Your task to perform on an android device: open app "McDonald's" (install if not already installed) Image 0: 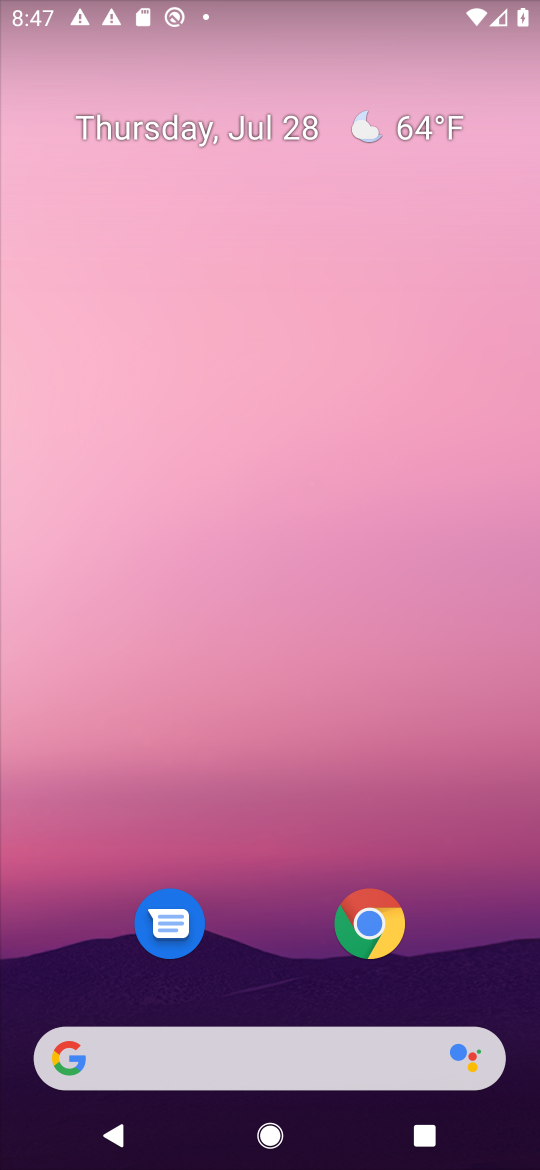
Step 0: press home button
Your task to perform on an android device: open app "McDonald's" (install if not already installed) Image 1: 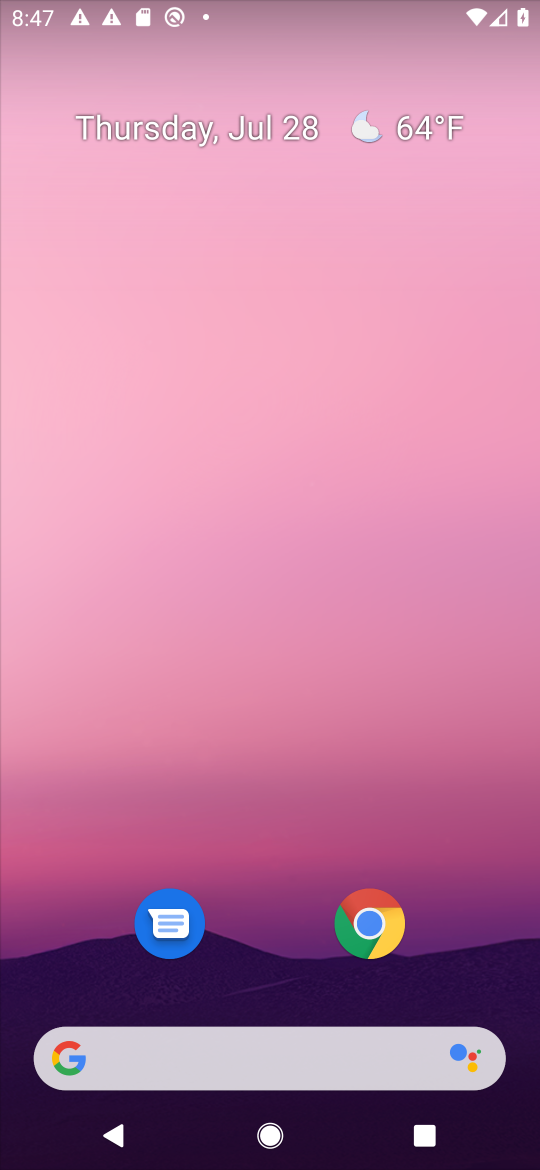
Step 1: drag from (464, 781) to (448, 215)
Your task to perform on an android device: open app "McDonald's" (install if not already installed) Image 2: 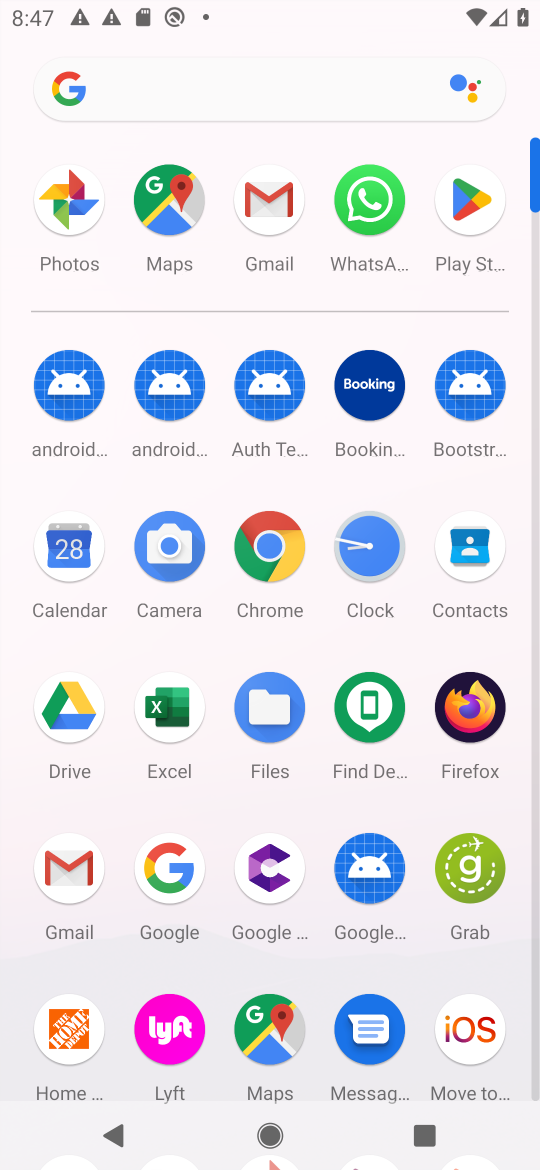
Step 2: click (475, 208)
Your task to perform on an android device: open app "McDonald's" (install if not already installed) Image 3: 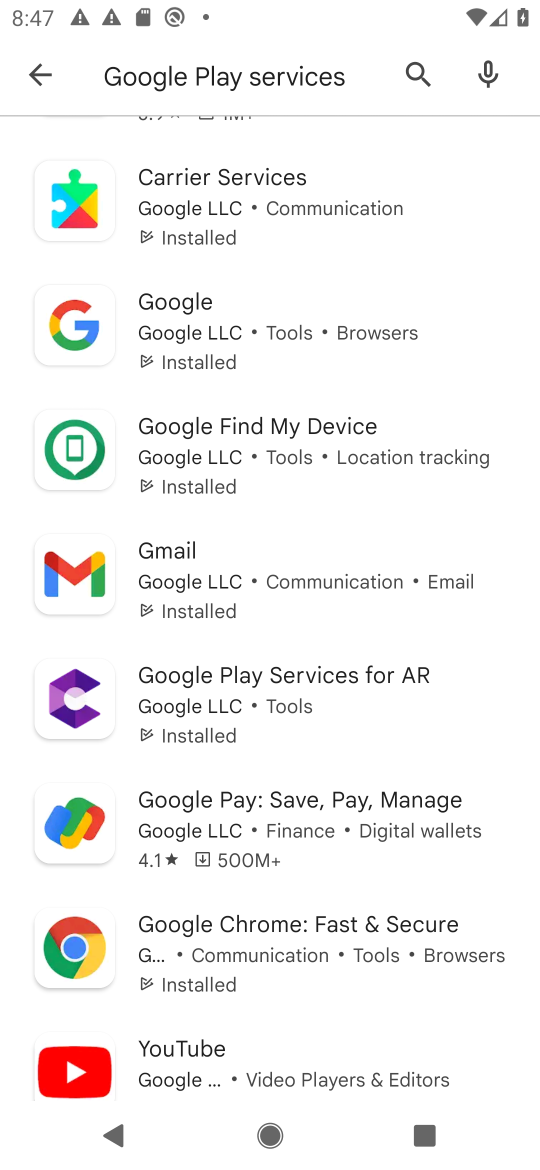
Step 3: click (359, 94)
Your task to perform on an android device: open app "McDonald's" (install if not already installed) Image 4: 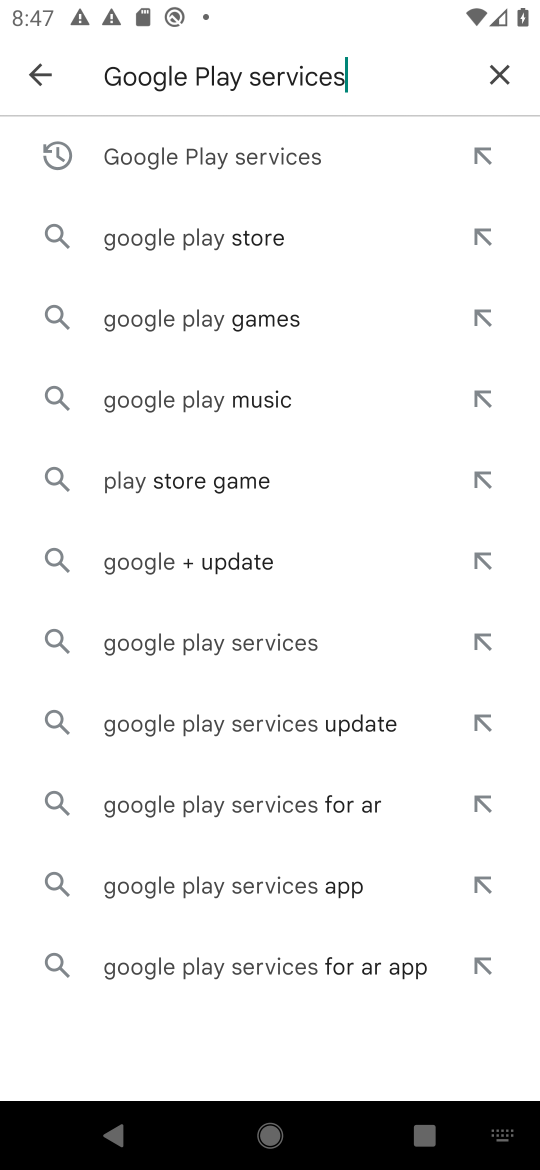
Step 4: click (501, 73)
Your task to perform on an android device: open app "McDonald's" (install if not already installed) Image 5: 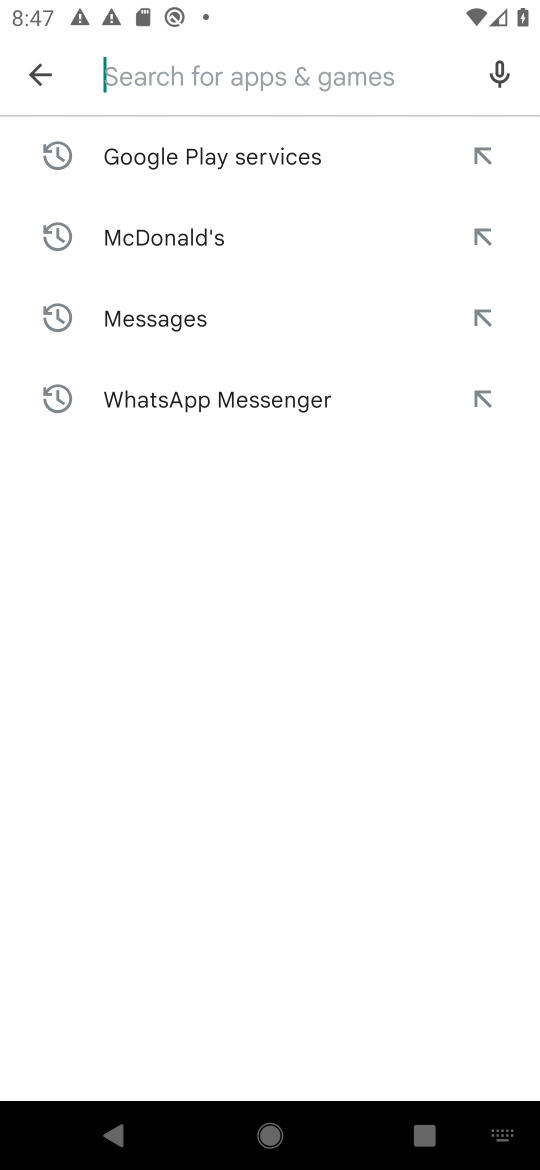
Step 5: type "McDonad's "
Your task to perform on an android device: open app "McDonald's" (install if not already installed) Image 6: 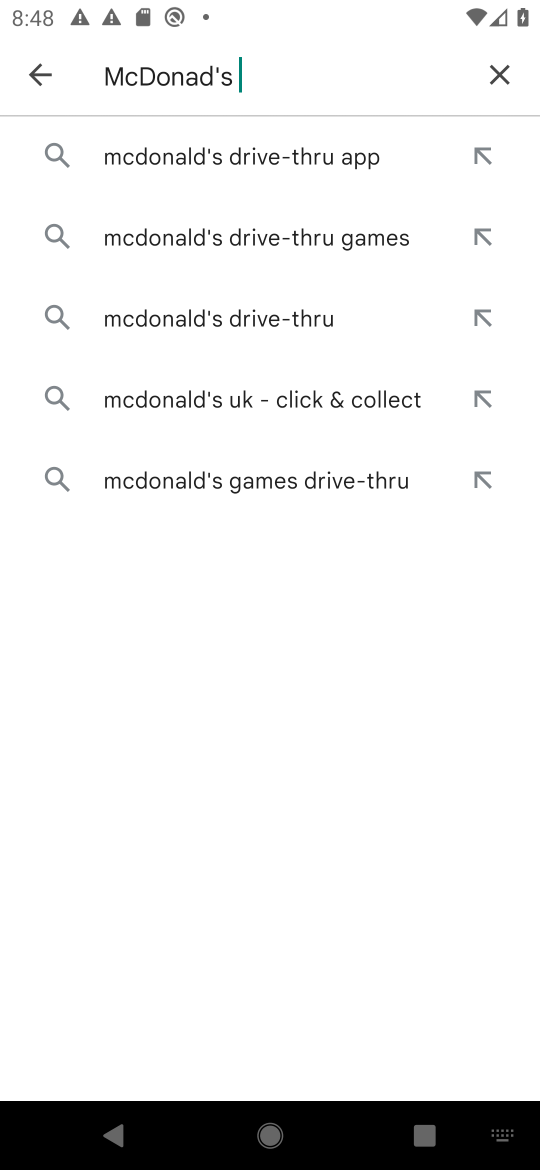
Step 6: press enter
Your task to perform on an android device: open app "McDonald's" (install if not already installed) Image 7: 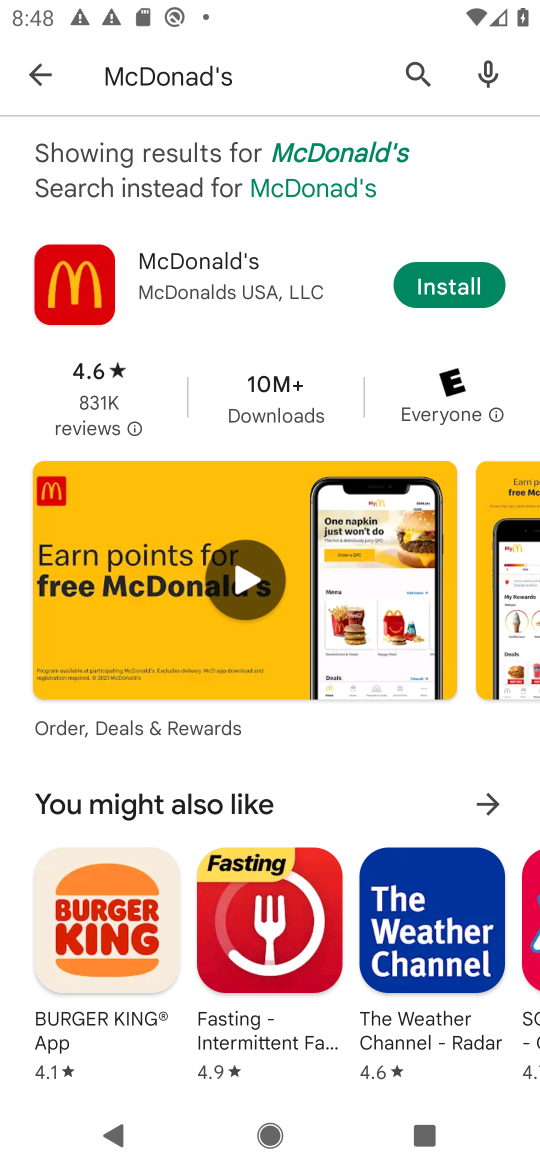
Step 7: click (458, 298)
Your task to perform on an android device: open app "McDonald's" (install if not already installed) Image 8: 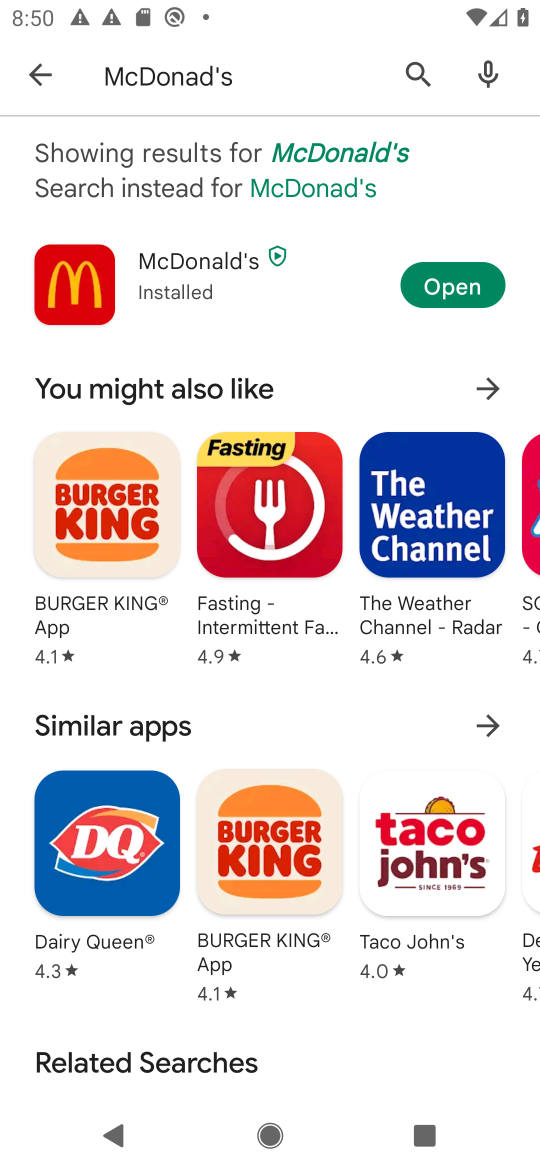
Step 8: click (447, 287)
Your task to perform on an android device: open app "McDonald's" (install if not already installed) Image 9: 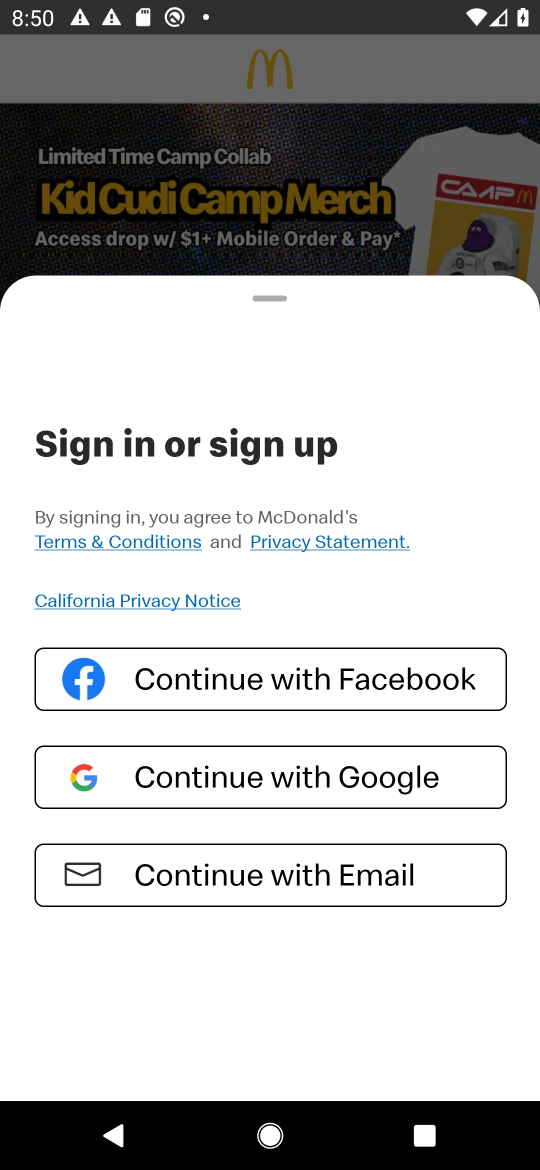
Step 9: task complete